Your task to perform on an android device: Open Google Maps and go to "Timeline" Image 0: 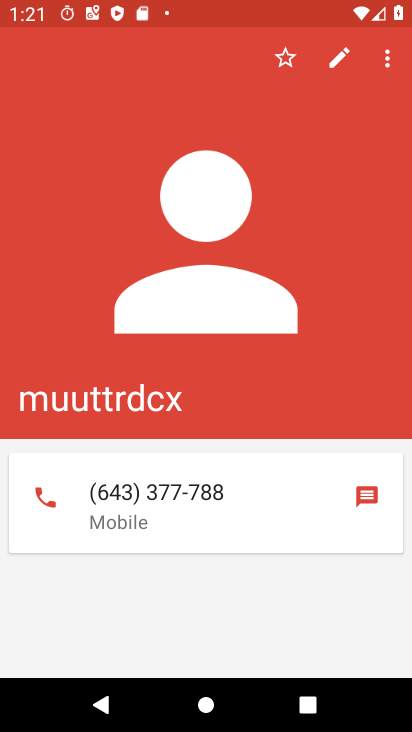
Step 0: press home button
Your task to perform on an android device: Open Google Maps and go to "Timeline" Image 1: 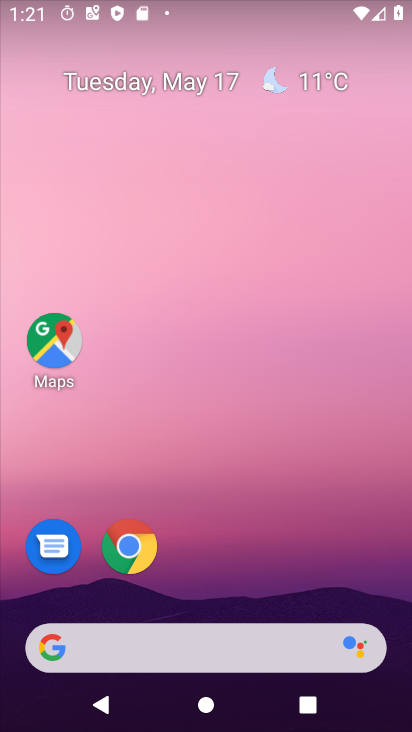
Step 1: click (56, 351)
Your task to perform on an android device: Open Google Maps and go to "Timeline" Image 2: 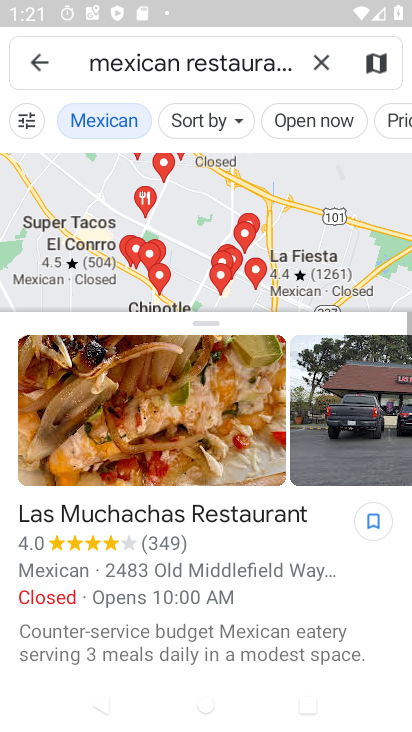
Step 2: click (48, 69)
Your task to perform on an android device: Open Google Maps and go to "Timeline" Image 3: 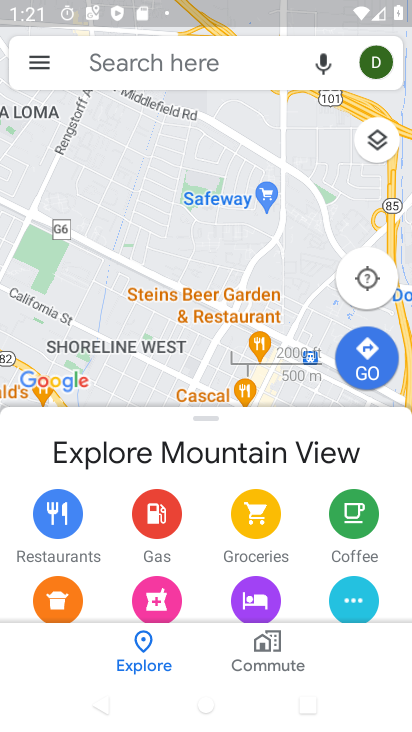
Step 3: click (37, 64)
Your task to perform on an android device: Open Google Maps and go to "Timeline" Image 4: 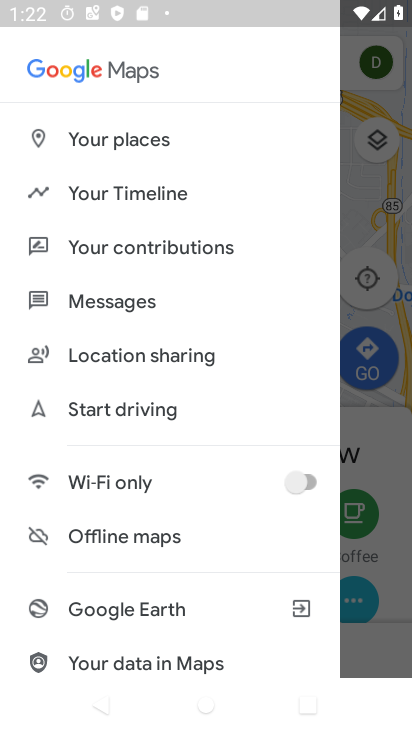
Step 4: click (132, 196)
Your task to perform on an android device: Open Google Maps and go to "Timeline" Image 5: 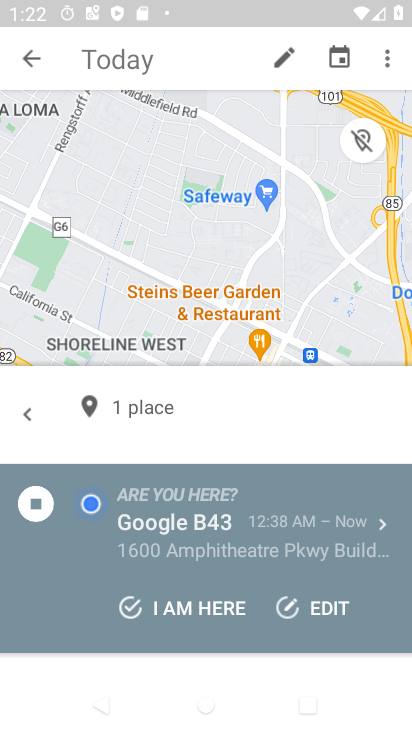
Step 5: task complete